Your task to perform on an android device: Open the web browser Image 0: 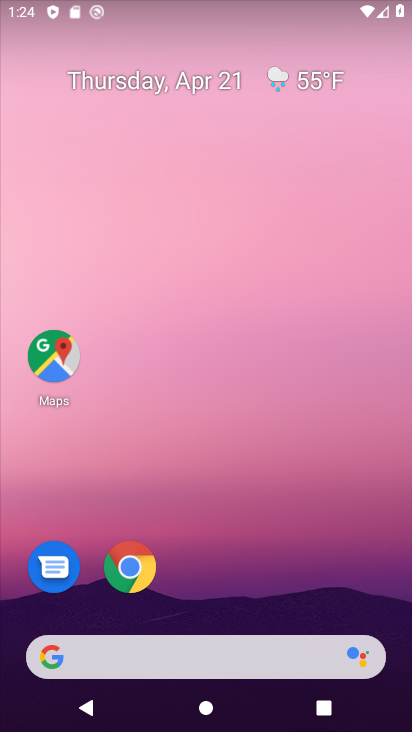
Step 0: click (132, 559)
Your task to perform on an android device: Open the web browser Image 1: 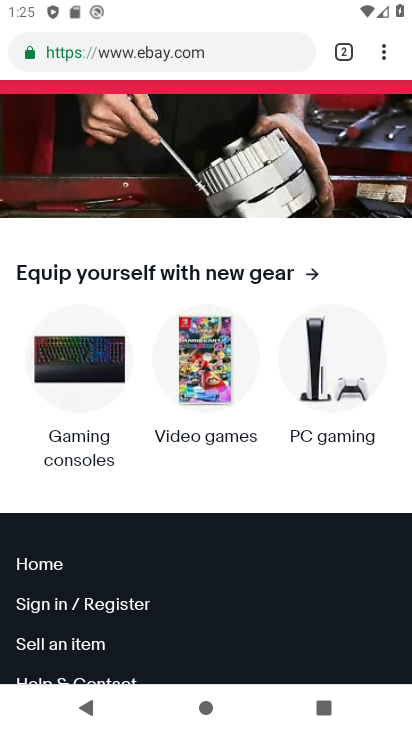
Step 1: task complete